Your task to perform on an android device: Search for the best rated 4K TV on Best Buy. Image 0: 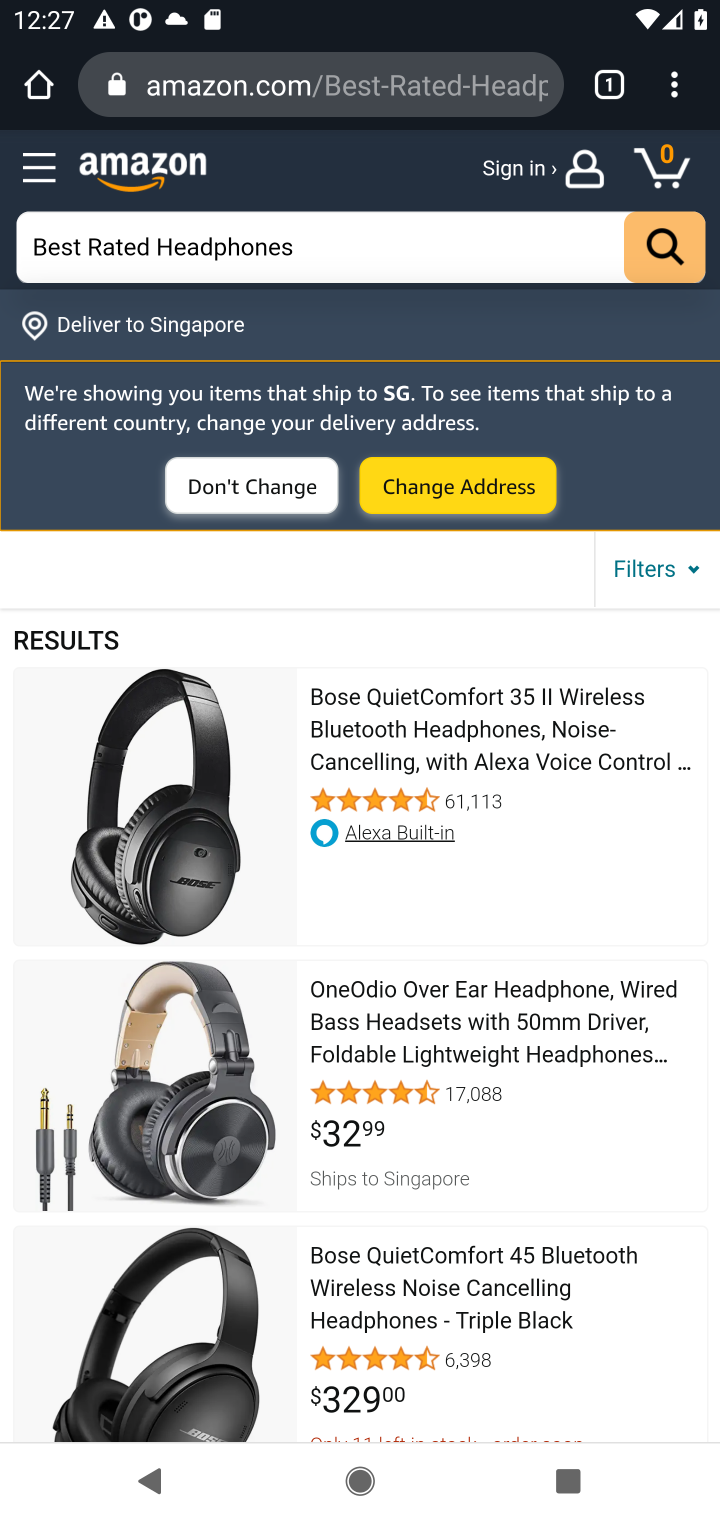
Step 0: click (377, 81)
Your task to perform on an android device: Search for the best rated 4K TV on Best Buy. Image 1: 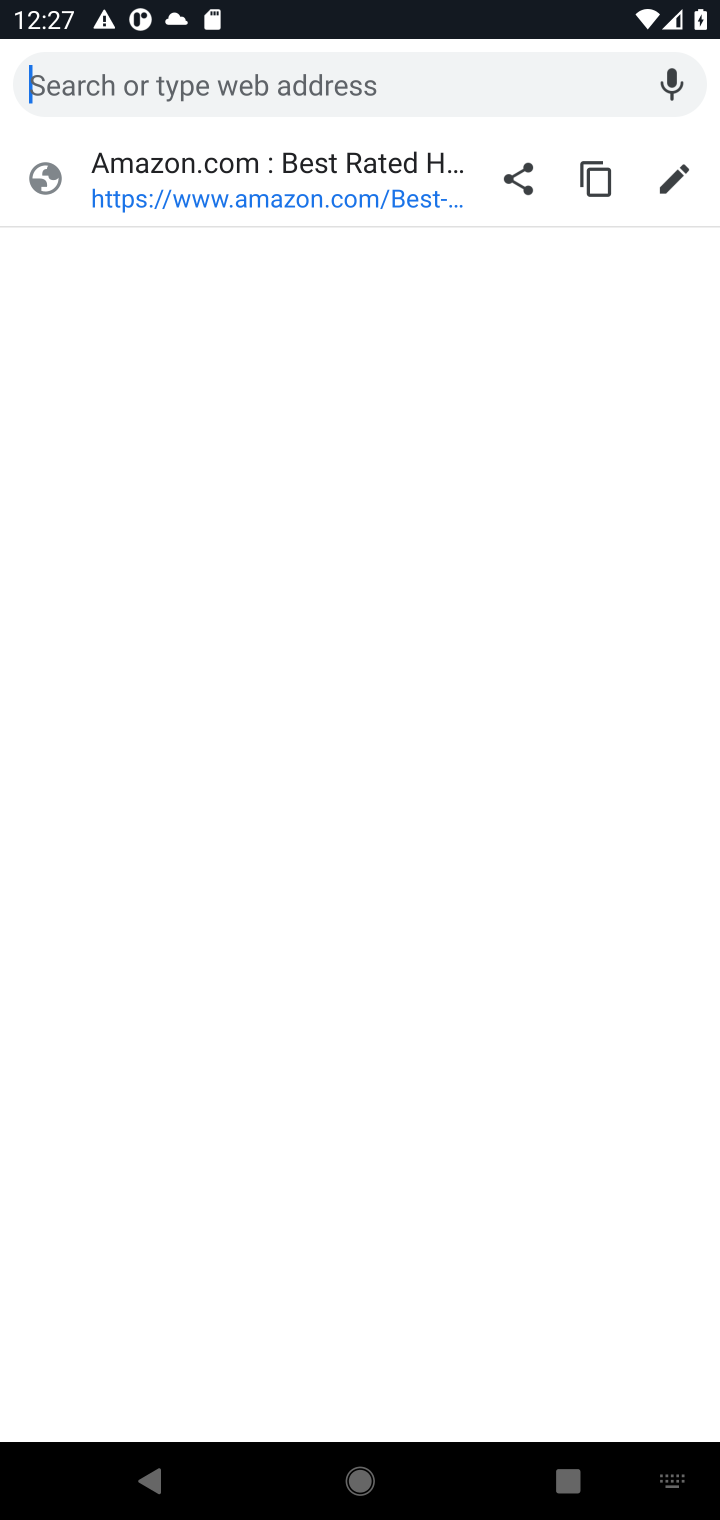
Step 1: type "best rated 4K TV on Best Buy"
Your task to perform on an android device: Search for the best rated 4K TV on Best Buy. Image 2: 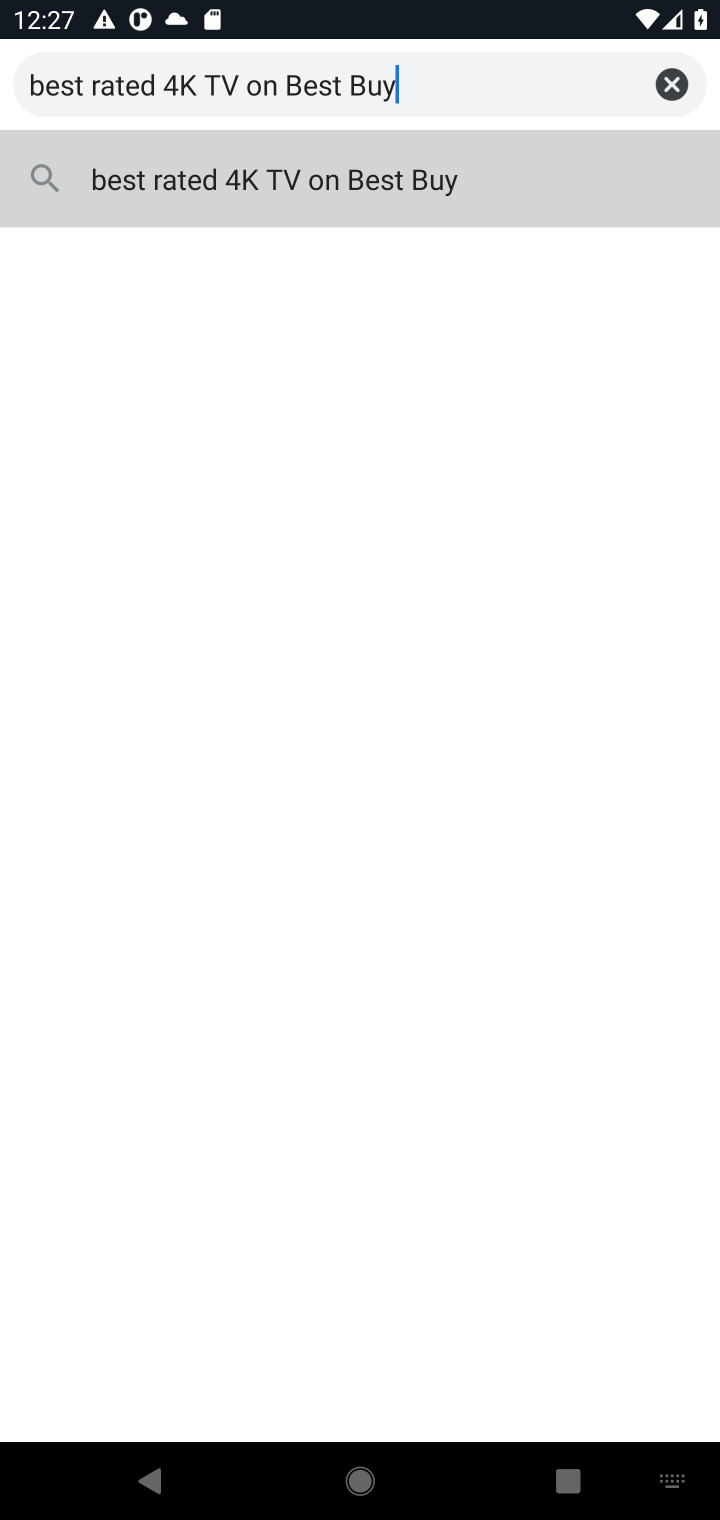
Step 2: press enter
Your task to perform on an android device: Search for the best rated 4K TV on Best Buy. Image 3: 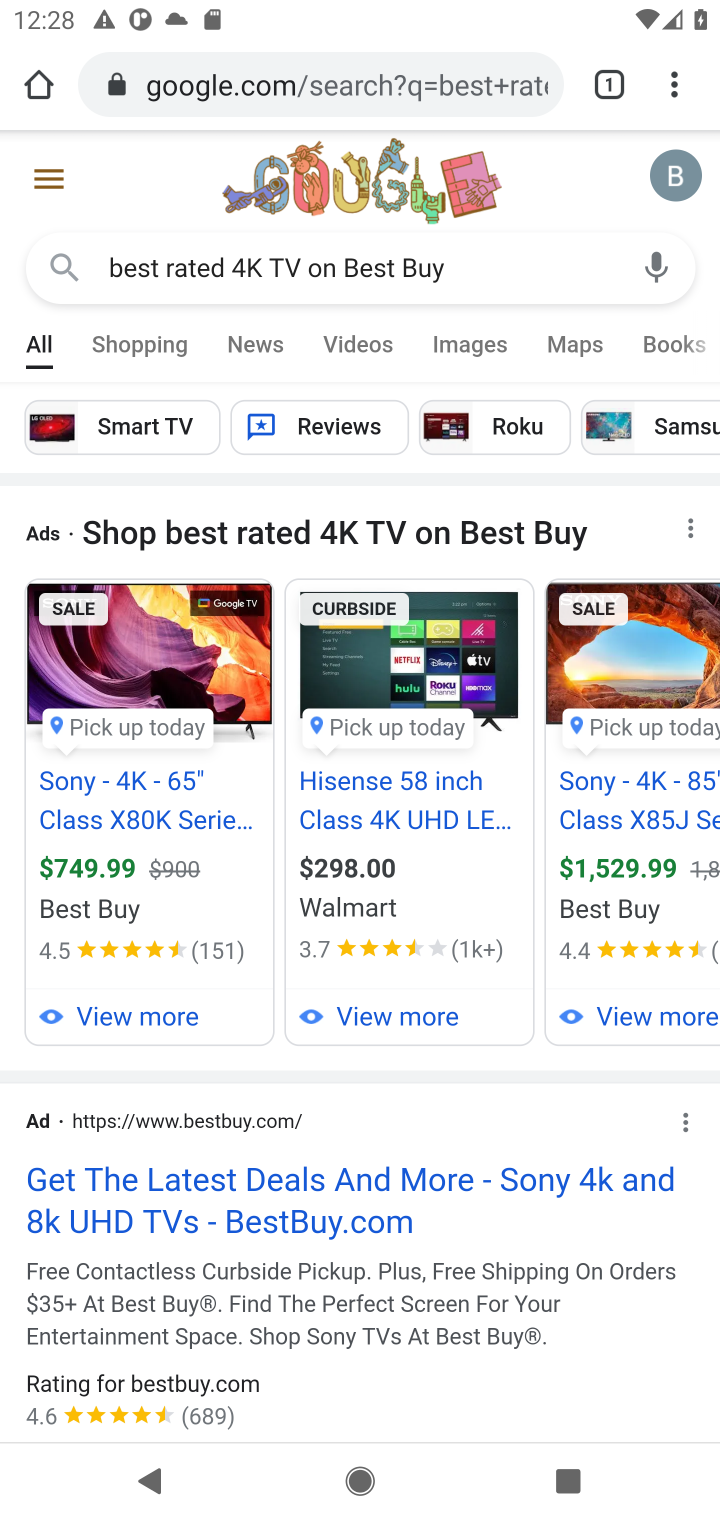
Step 3: drag from (310, 708) to (355, 264)
Your task to perform on an android device: Search for the best rated 4K TV on Best Buy. Image 4: 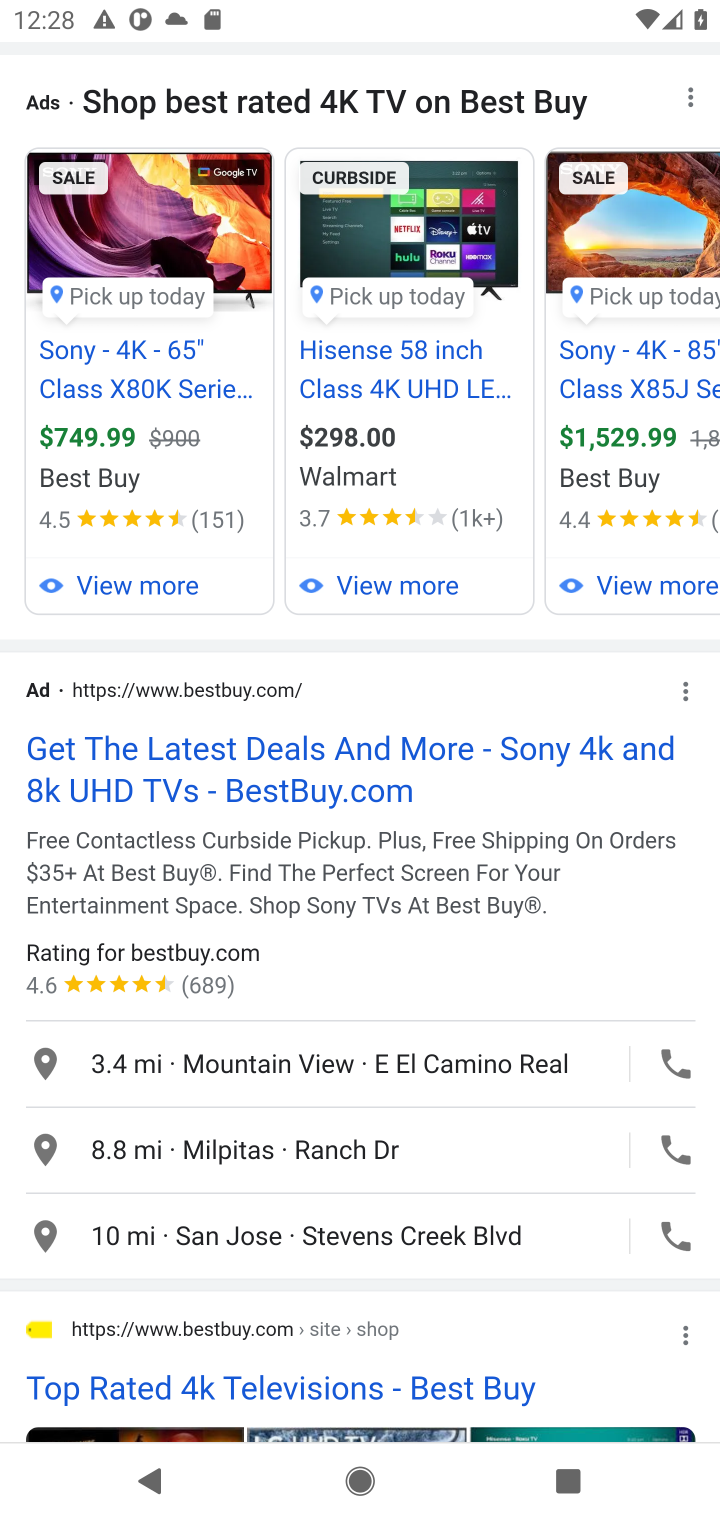
Step 4: drag from (408, 1019) to (509, 423)
Your task to perform on an android device: Search for the best rated 4K TV on Best Buy. Image 5: 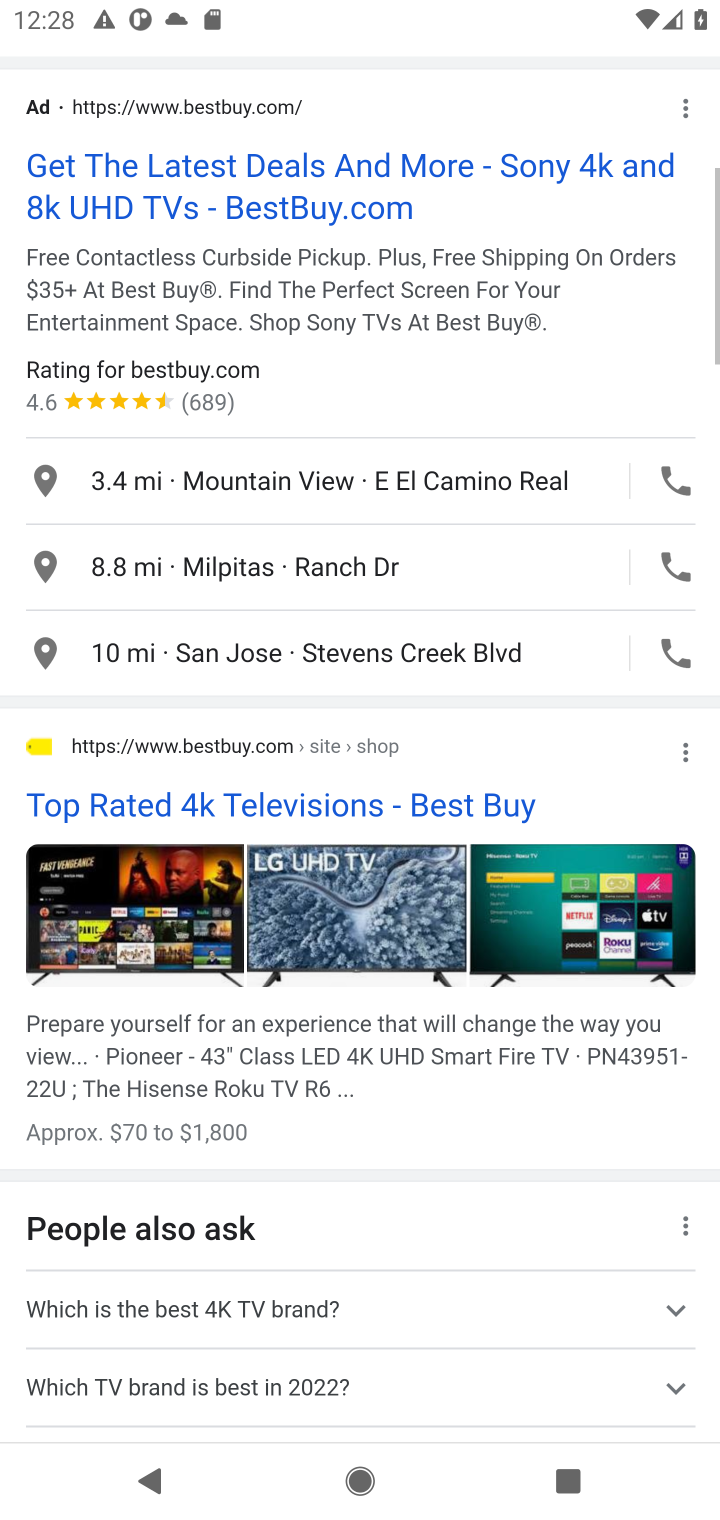
Step 5: click (226, 892)
Your task to perform on an android device: Search for the best rated 4K TV on Best Buy. Image 6: 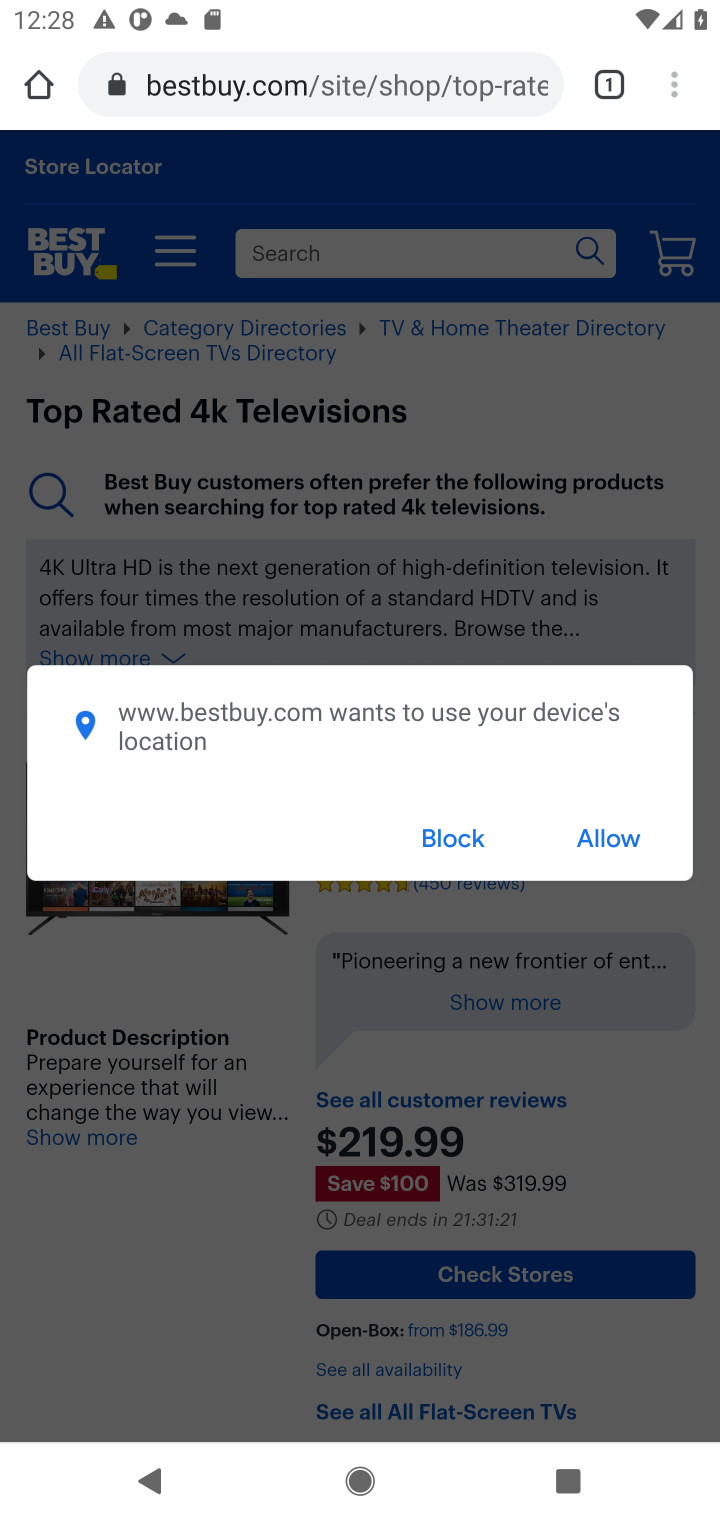
Step 6: drag from (486, 1192) to (500, 495)
Your task to perform on an android device: Search for the best rated 4K TV on Best Buy. Image 7: 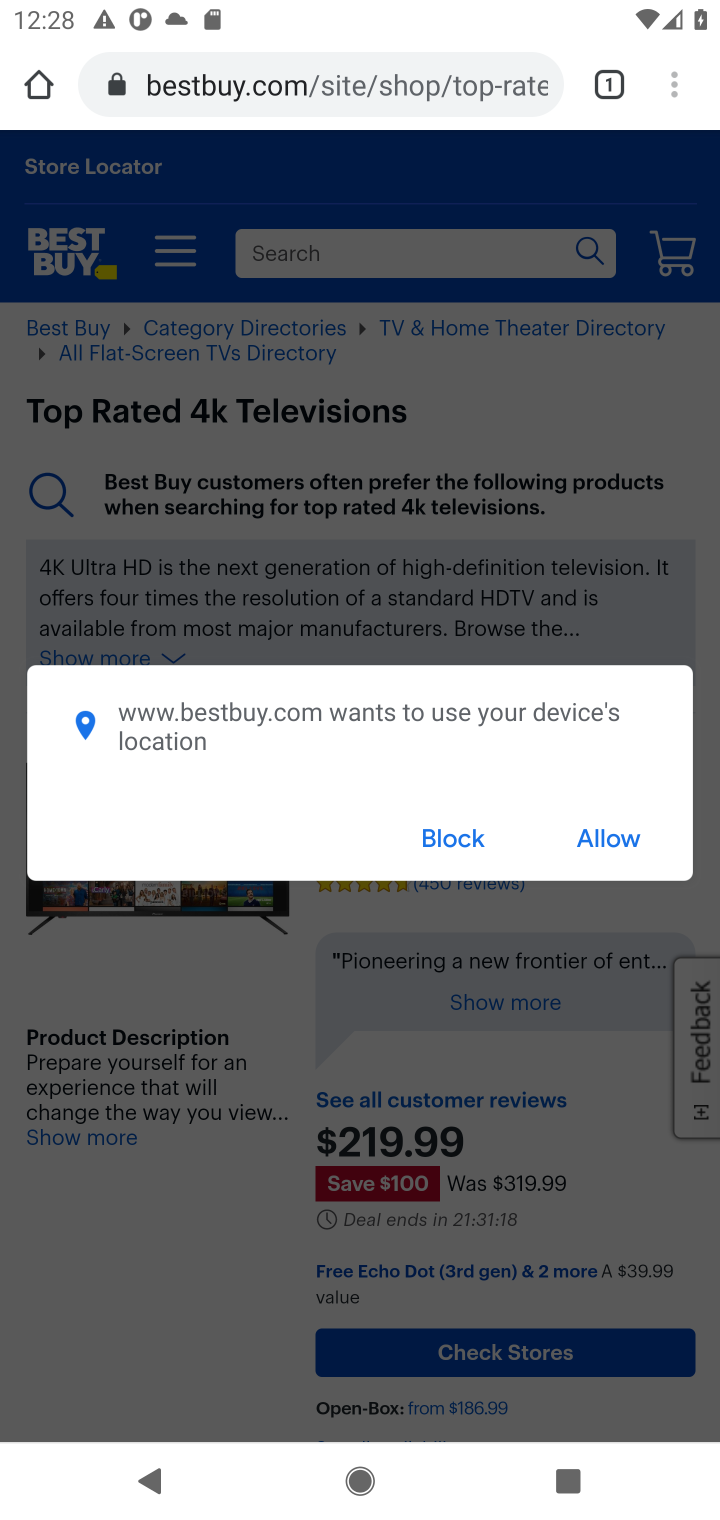
Step 7: click (468, 837)
Your task to perform on an android device: Search for the best rated 4K TV on Best Buy. Image 8: 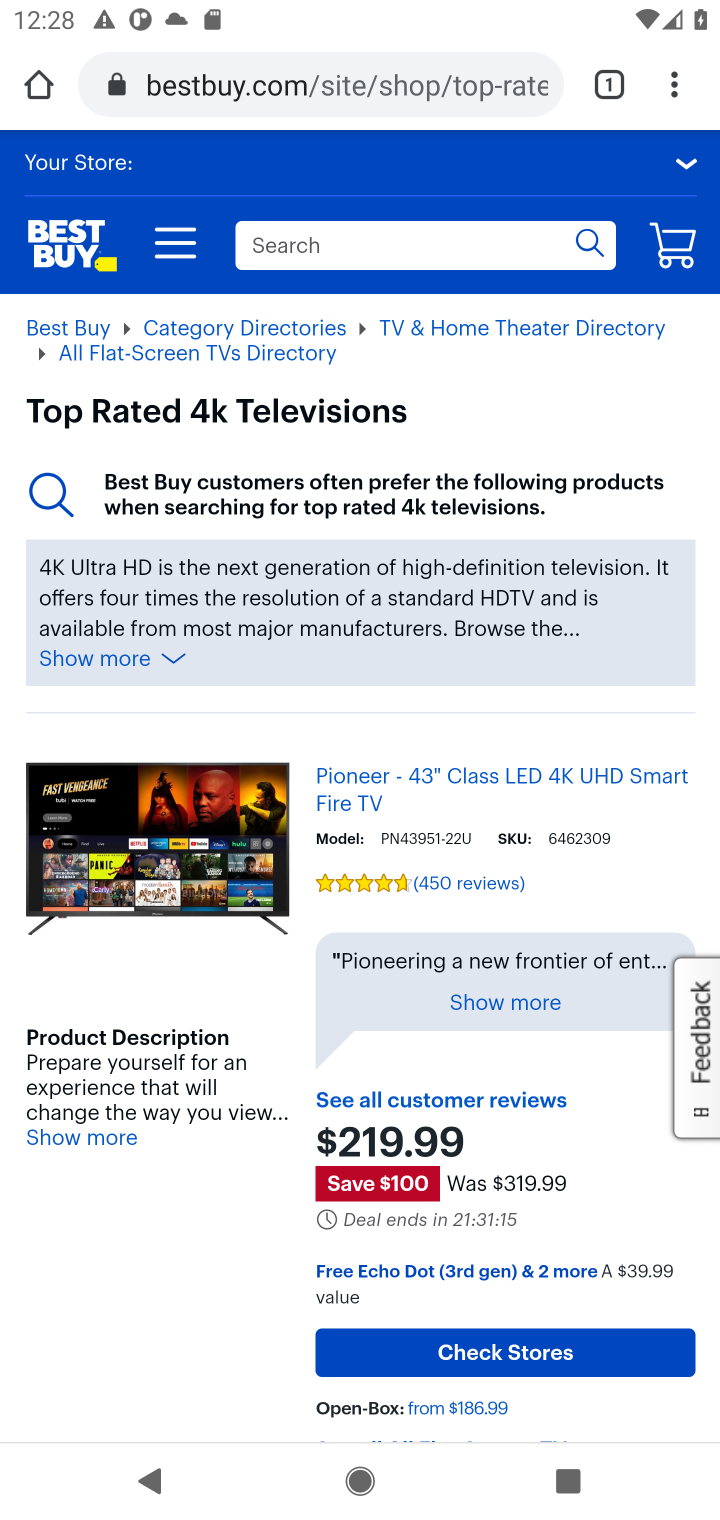
Step 8: task complete